Your task to perform on an android device: Open notification settings Image 0: 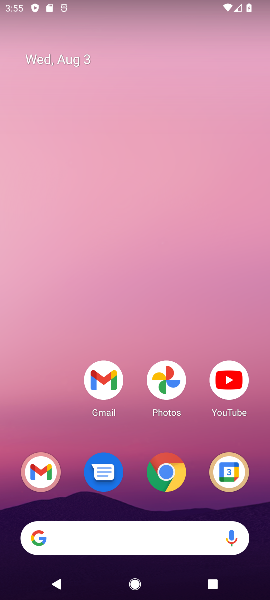
Step 0: drag from (218, 509) to (89, 30)
Your task to perform on an android device: Open notification settings Image 1: 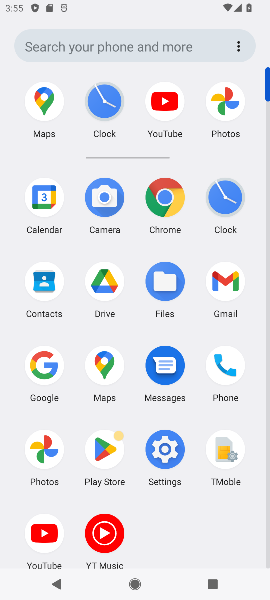
Step 1: click (162, 458)
Your task to perform on an android device: Open notification settings Image 2: 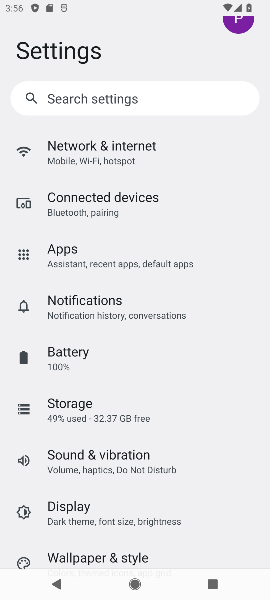
Step 2: click (100, 310)
Your task to perform on an android device: Open notification settings Image 3: 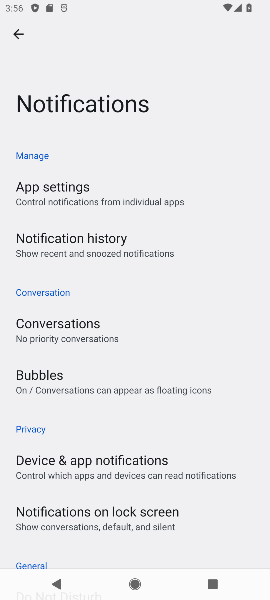
Step 3: task complete